Your task to perform on an android device: snooze an email in the gmail app Image 0: 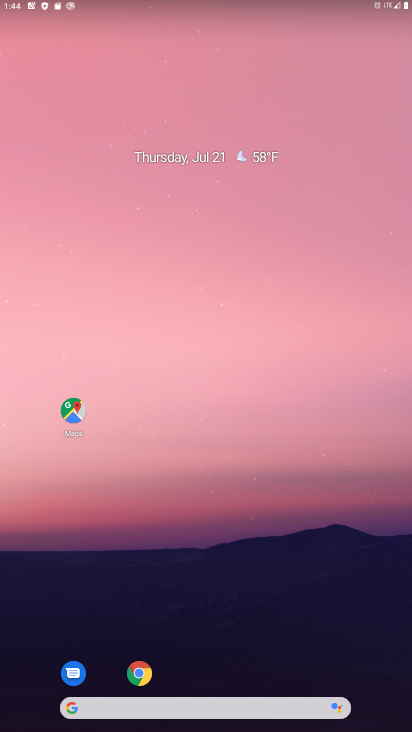
Step 0: drag from (256, 681) to (254, 421)
Your task to perform on an android device: snooze an email in the gmail app Image 1: 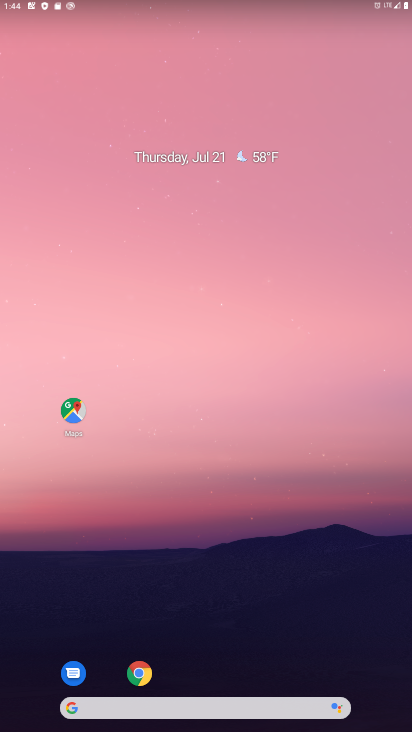
Step 1: drag from (173, 707) to (163, 298)
Your task to perform on an android device: snooze an email in the gmail app Image 2: 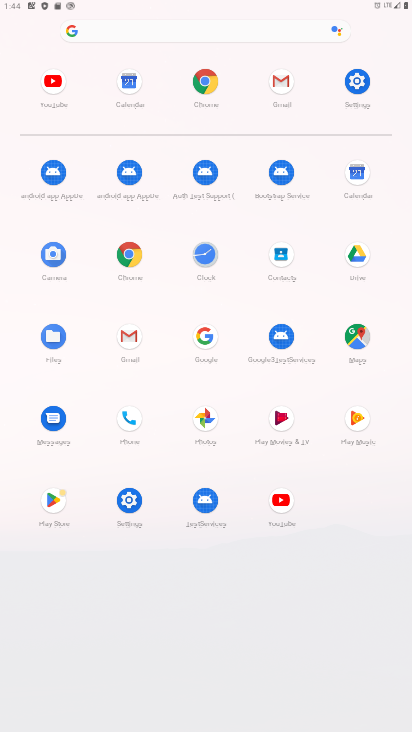
Step 2: click (274, 80)
Your task to perform on an android device: snooze an email in the gmail app Image 3: 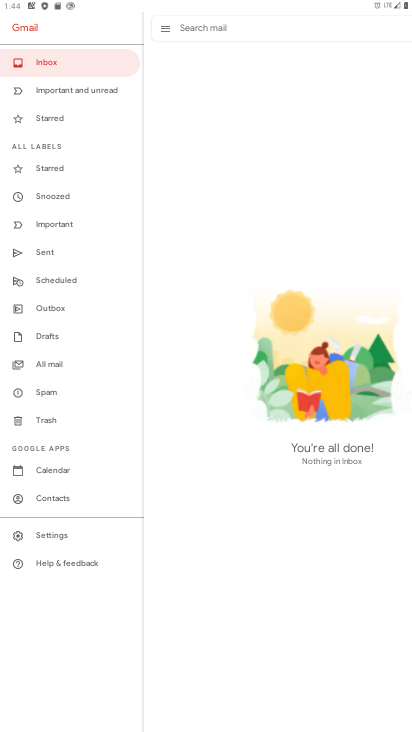
Step 3: click (66, 197)
Your task to perform on an android device: snooze an email in the gmail app Image 4: 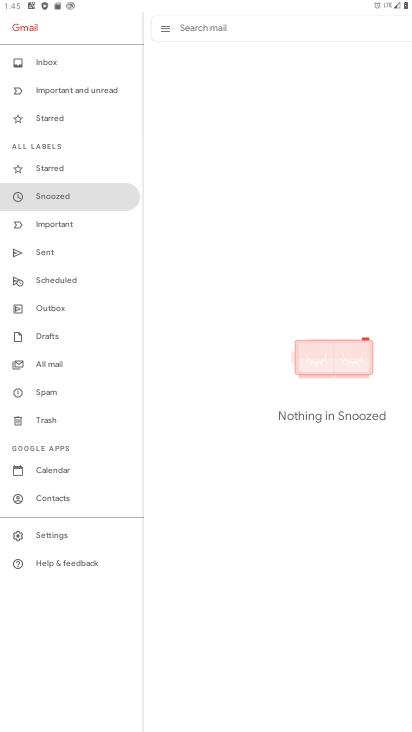
Step 4: task complete